Your task to perform on an android device: Go to internet settings Image 0: 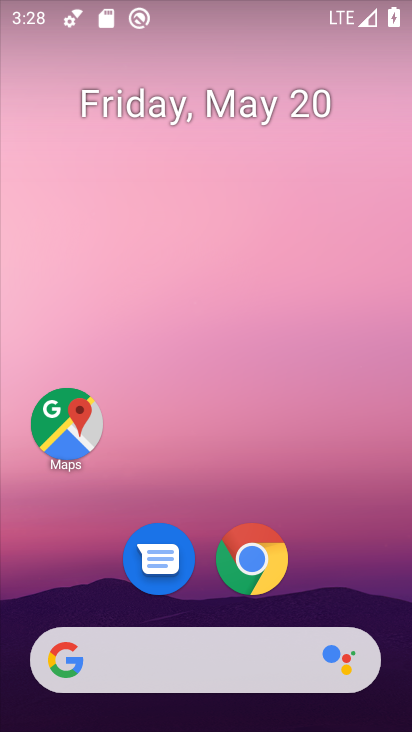
Step 0: drag from (334, 532) to (278, 41)
Your task to perform on an android device: Go to internet settings Image 1: 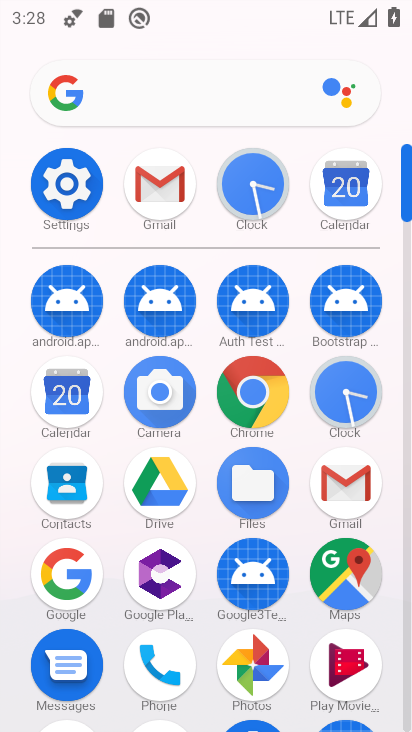
Step 1: click (76, 189)
Your task to perform on an android device: Go to internet settings Image 2: 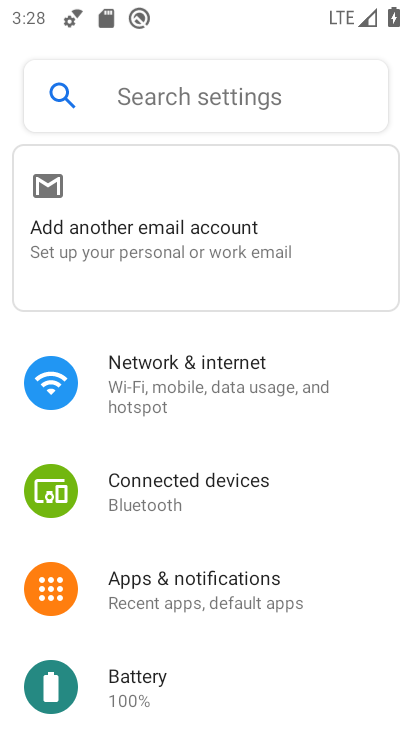
Step 2: click (180, 371)
Your task to perform on an android device: Go to internet settings Image 3: 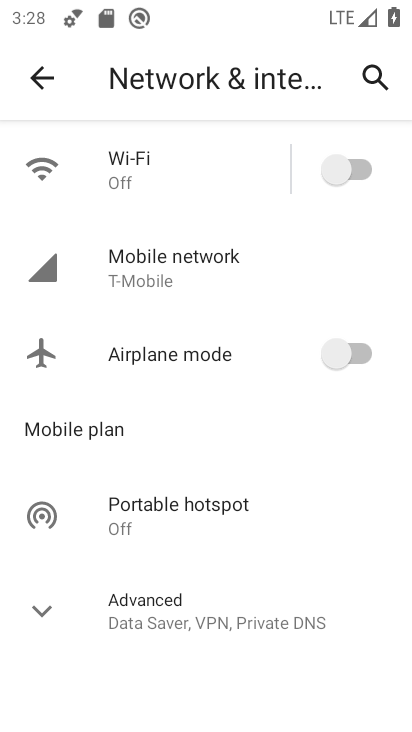
Step 3: task complete